Your task to perform on an android device: Go to internet settings Image 0: 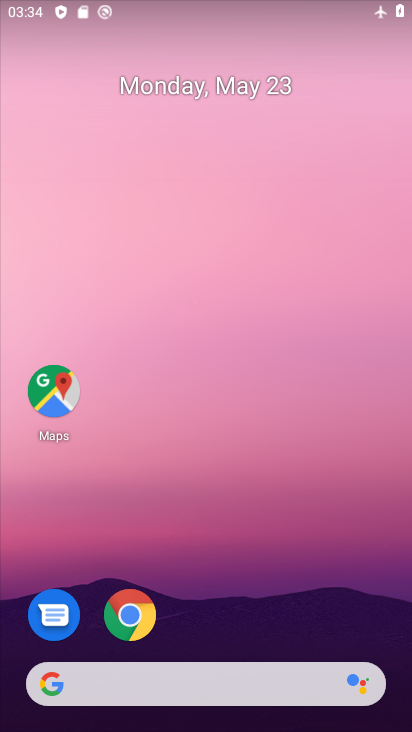
Step 0: drag from (265, 597) to (251, 214)
Your task to perform on an android device: Go to internet settings Image 1: 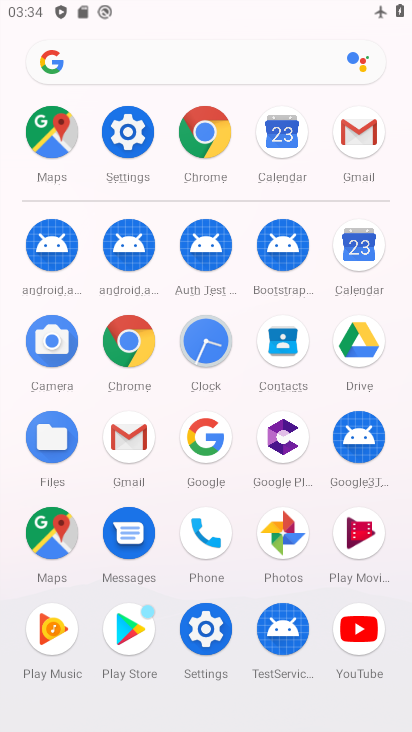
Step 1: click (128, 122)
Your task to perform on an android device: Go to internet settings Image 2: 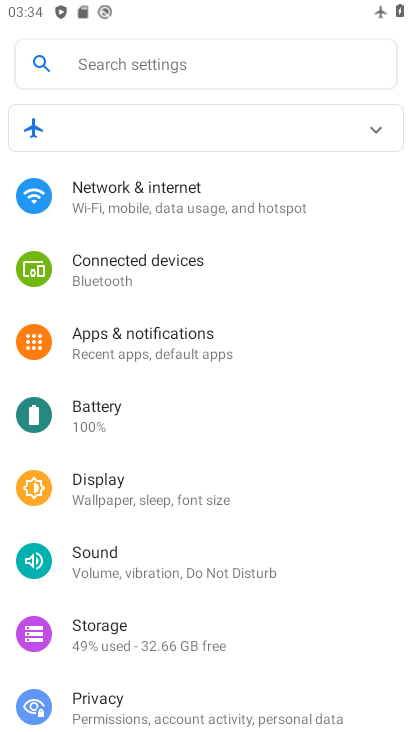
Step 2: click (172, 202)
Your task to perform on an android device: Go to internet settings Image 3: 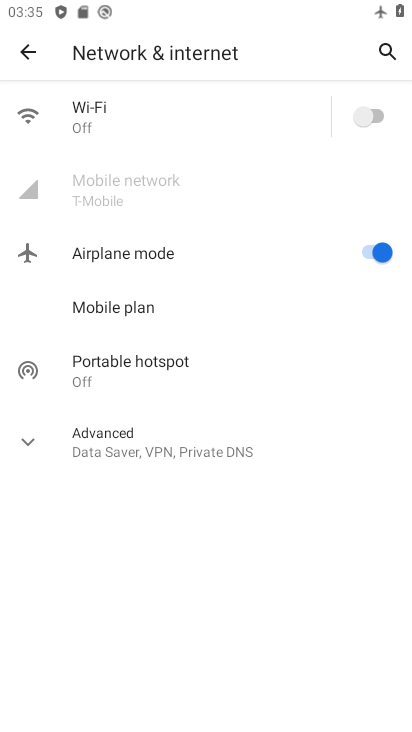
Step 3: task complete